Your task to perform on an android device: turn on airplane mode Image 0: 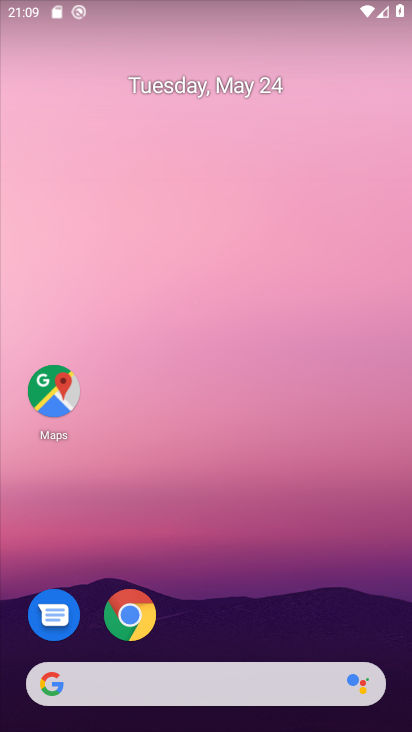
Step 0: drag from (306, 660) to (290, 341)
Your task to perform on an android device: turn on airplane mode Image 1: 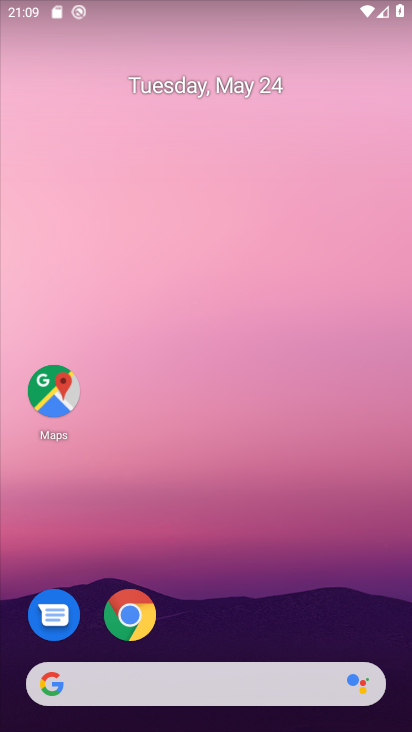
Step 1: drag from (217, 612) to (227, 241)
Your task to perform on an android device: turn on airplane mode Image 2: 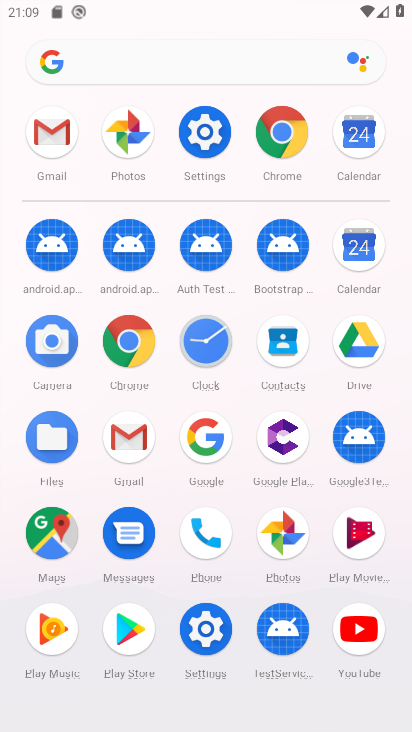
Step 2: click (192, 120)
Your task to perform on an android device: turn on airplane mode Image 3: 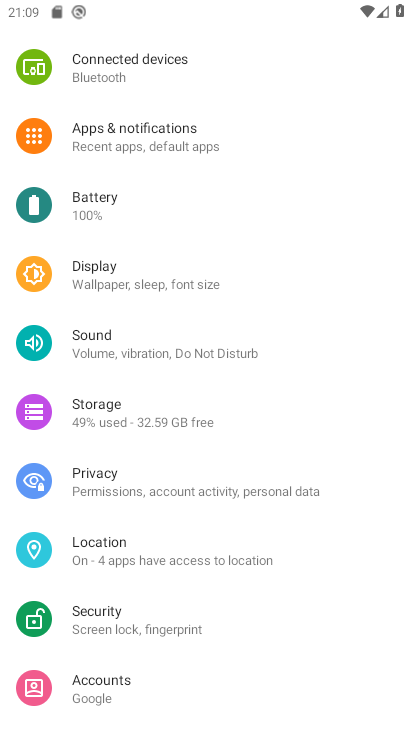
Step 3: drag from (153, 80) to (151, 397)
Your task to perform on an android device: turn on airplane mode Image 4: 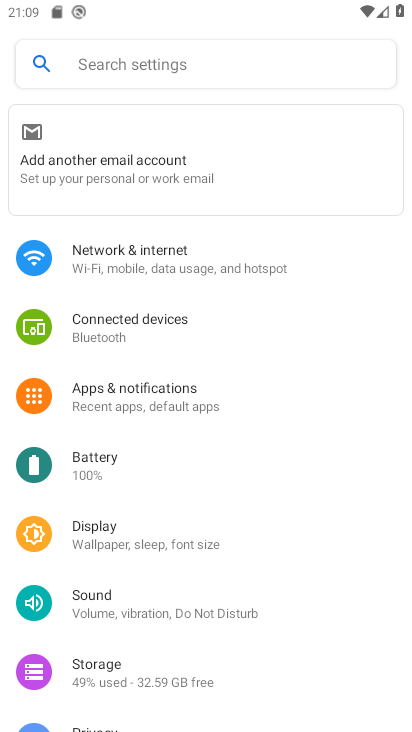
Step 4: click (194, 256)
Your task to perform on an android device: turn on airplane mode Image 5: 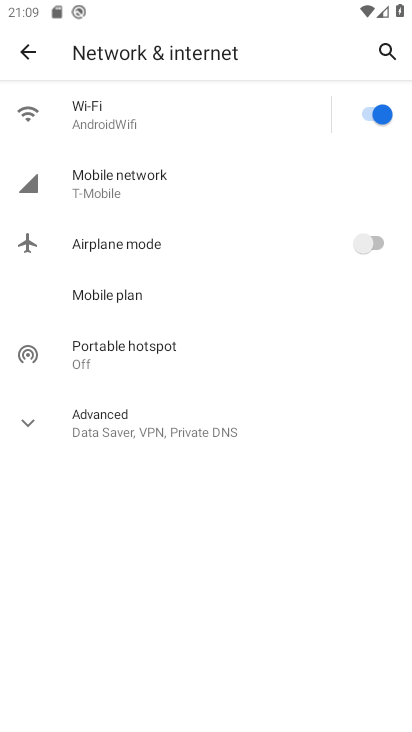
Step 5: click (383, 237)
Your task to perform on an android device: turn on airplane mode Image 6: 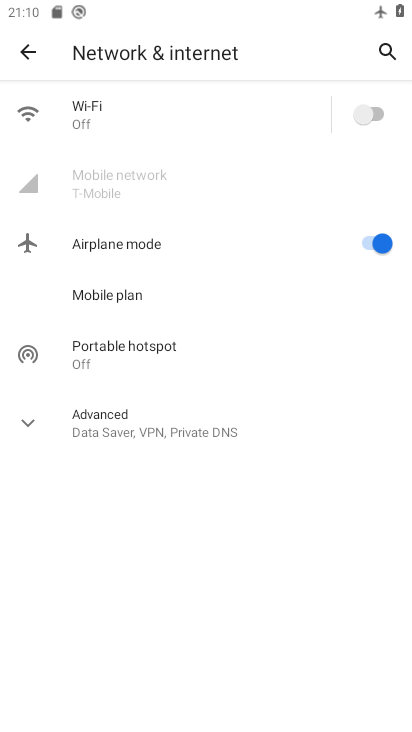
Step 6: task complete